Your task to perform on an android device: change notification settings in the gmail app Image 0: 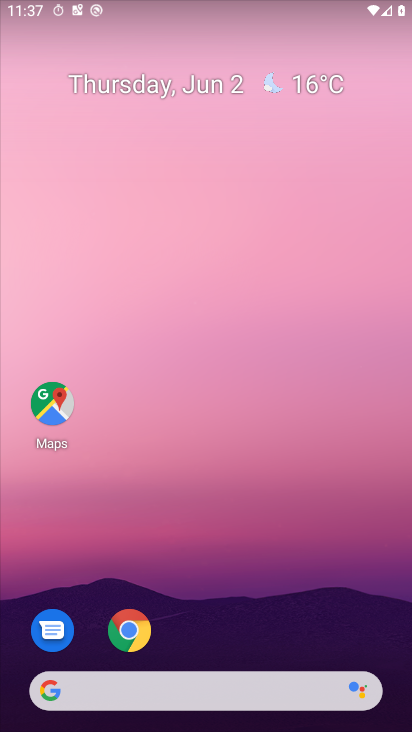
Step 0: drag from (241, 617) to (180, 8)
Your task to perform on an android device: change notification settings in the gmail app Image 1: 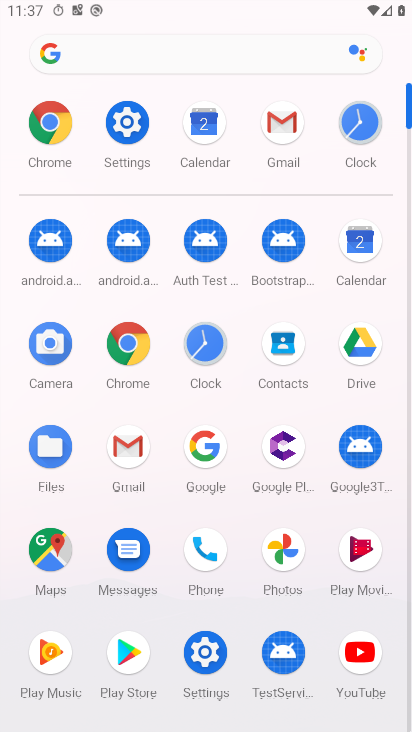
Step 1: click (127, 156)
Your task to perform on an android device: change notification settings in the gmail app Image 2: 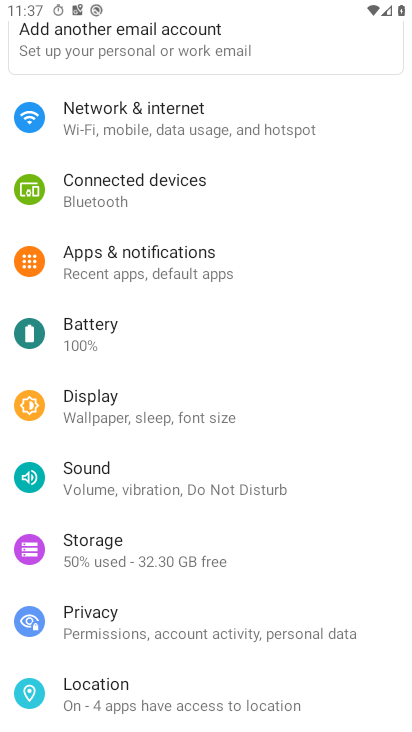
Step 2: click (200, 262)
Your task to perform on an android device: change notification settings in the gmail app Image 3: 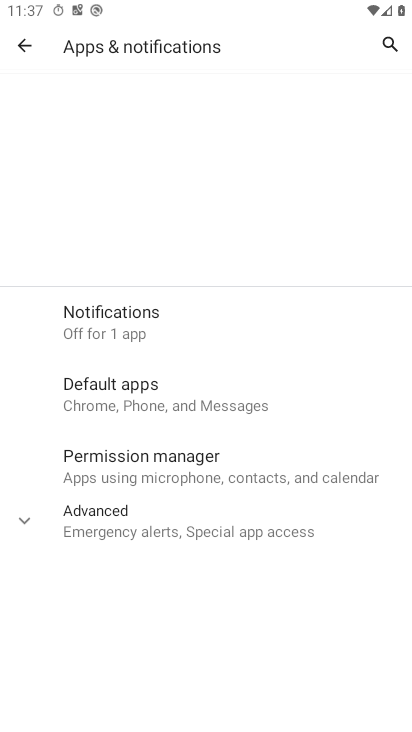
Step 3: click (186, 265)
Your task to perform on an android device: change notification settings in the gmail app Image 4: 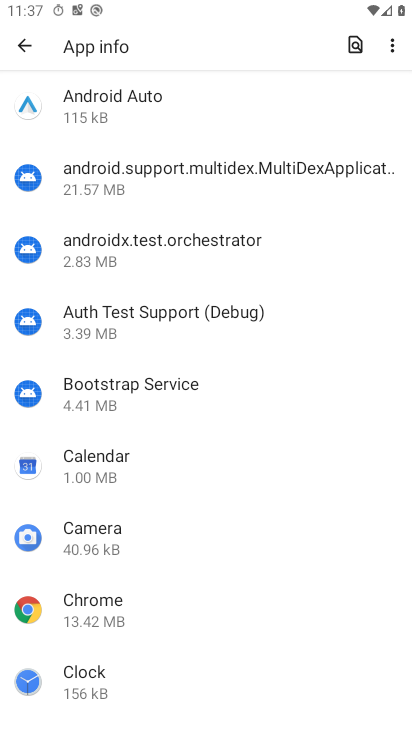
Step 4: click (27, 43)
Your task to perform on an android device: change notification settings in the gmail app Image 5: 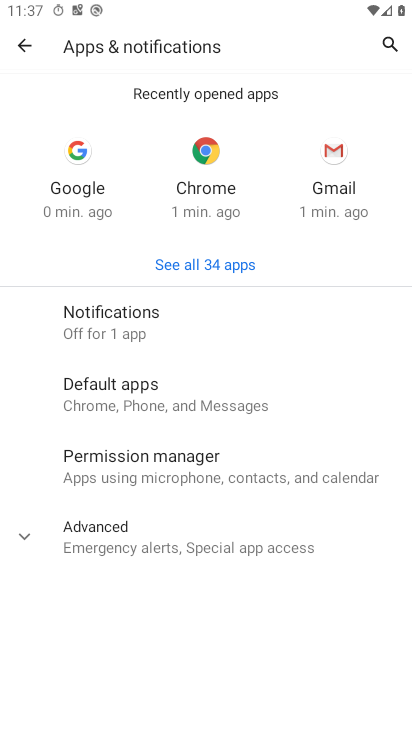
Step 5: click (128, 322)
Your task to perform on an android device: change notification settings in the gmail app Image 6: 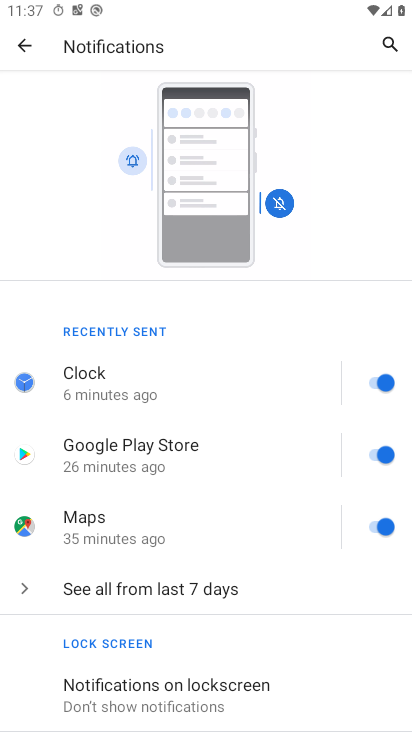
Step 6: click (210, 588)
Your task to perform on an android device: change notification settings in the gmail app Image 7: 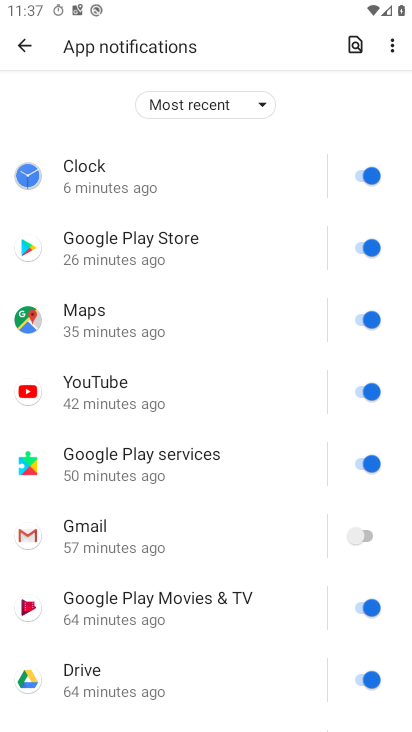
Step 7: click (368, 172)
Your task to perform on an android device: change notification settings in the gmail app Image 8: 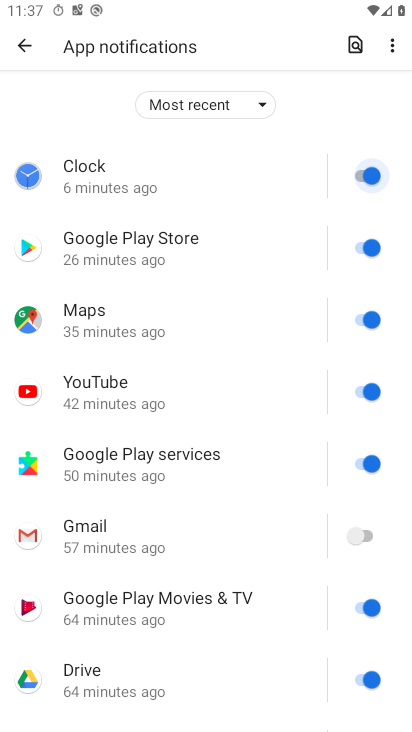
Step 8: click (369, 250)
Your task to perform on an android device: change notification settings in the gmail app Image 9: 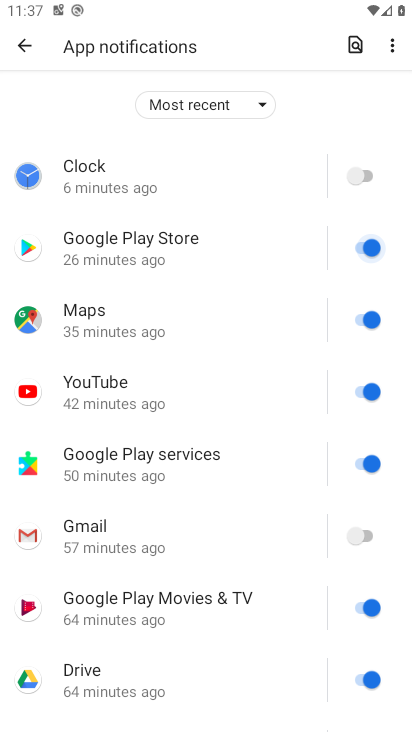
Step 9: click (362, 315)
Your task to perform on an android device: change notification settings in the gmail app Image 10: 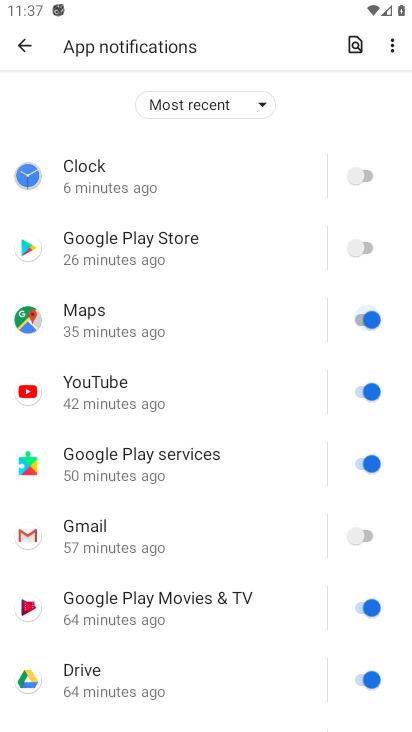
Step 10: click (350, 365)
Your task to perform on an android device: change notification settings in the gmail app Image 11: 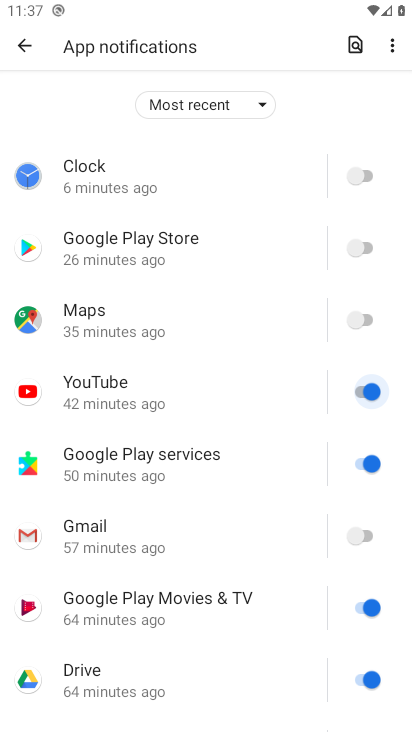
Step 11: click (355, 443)
Your task to perform on an android device: change notification settings in the gmail app Image 12: 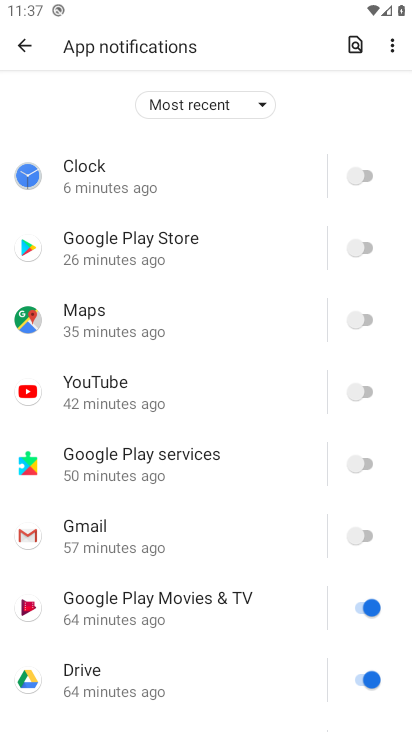
Step 12: click (347, 611)
Your task to perform on an android device: change notification settings in the gmail app Image 13: 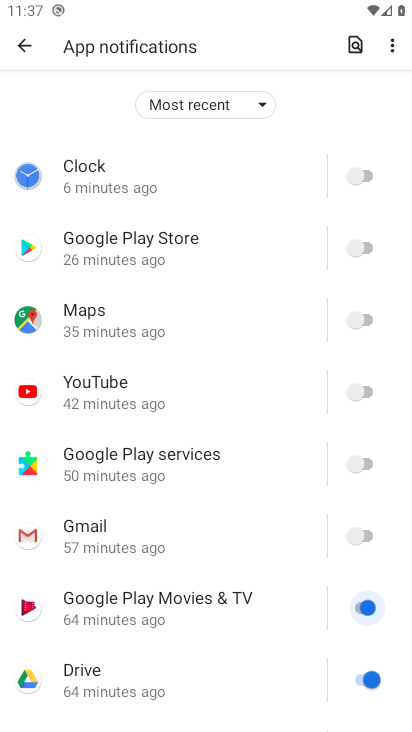
Step 13: click (348, 670)
Your task to perform on an android device: change notification settings in the gmail app Image 14: 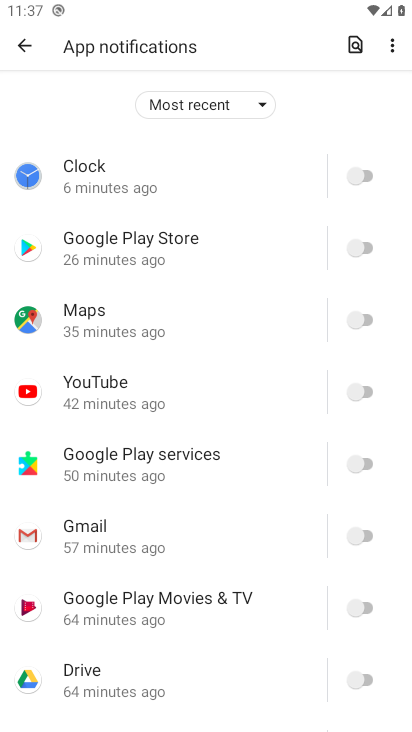
Step 14: drag from (316, 657) to (328, 393)
Your task to perform on an android device: change notification settings in the gmail app Image 15: 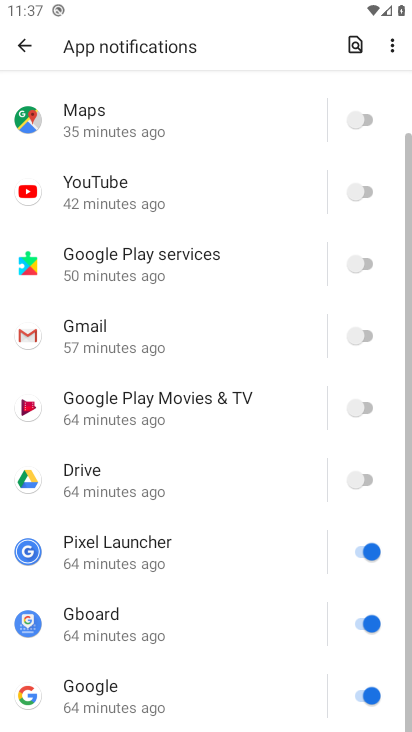
Step 15: click (348, 553)
Your task to perform on an android device: change notification settings in the gmail app Image 16: 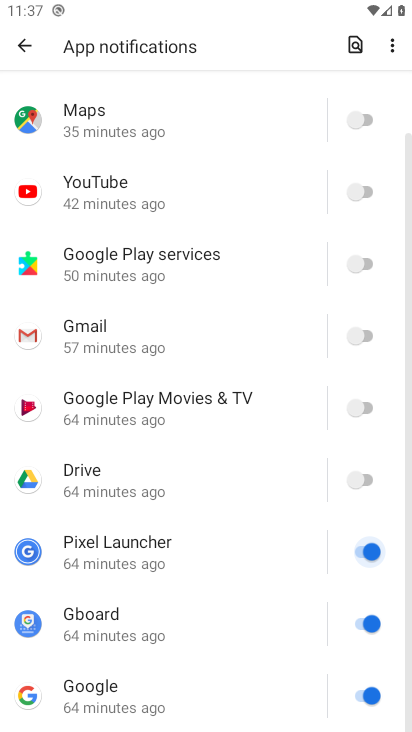
Step 16: click (359, 630)
Your task to perform on an android device: change notification settings in the gmail app Image 17: 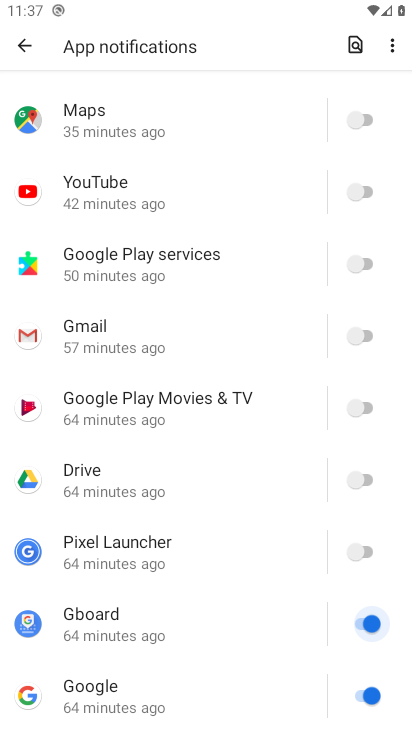
Step 17: click (371, 674)
Your task to perform on an android device: change notification settings in the gmail app Image 18: 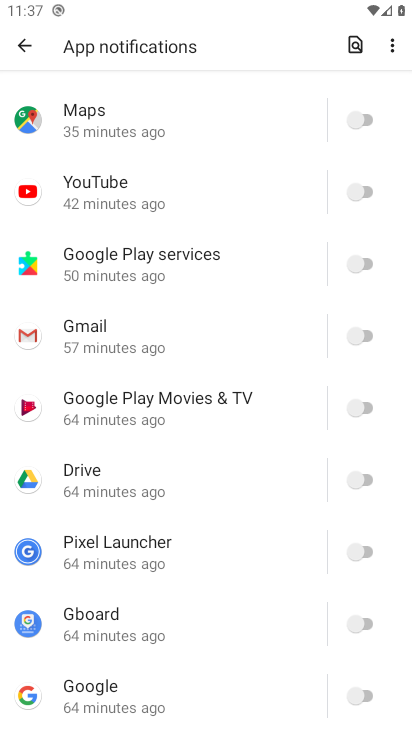
Step 18: task complete